Your task to perform on an android device: toggle notification dots Image 0: 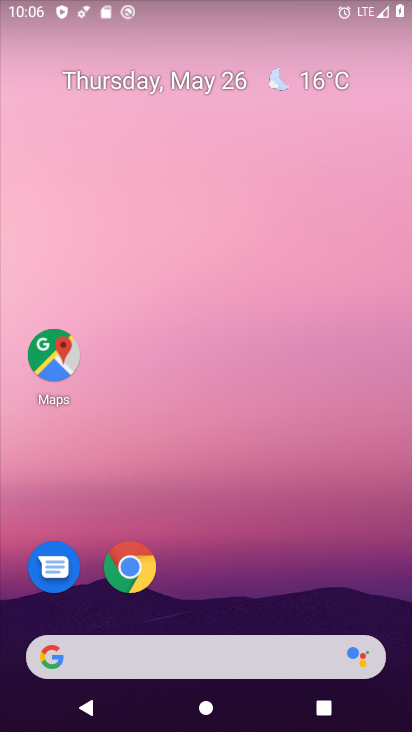
Step 0: drag from (401, 706) to (309, 162)
Your task to perform on an android device: toggle notification dots Image 1: 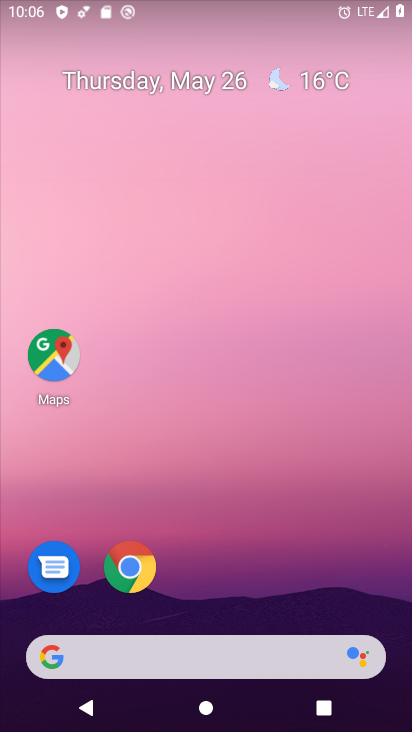
Step 1: drag from (389, 688) to (315, 131)
Your task to perform on an android device: toggle notification dots Image 2: 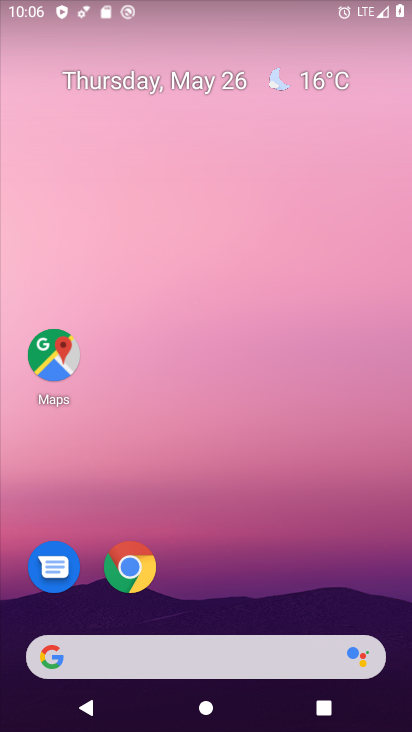
Step 2: drag from (385, 707) to (240, 114)
Your task to perform on an android device: toggle notification dots Image 3: 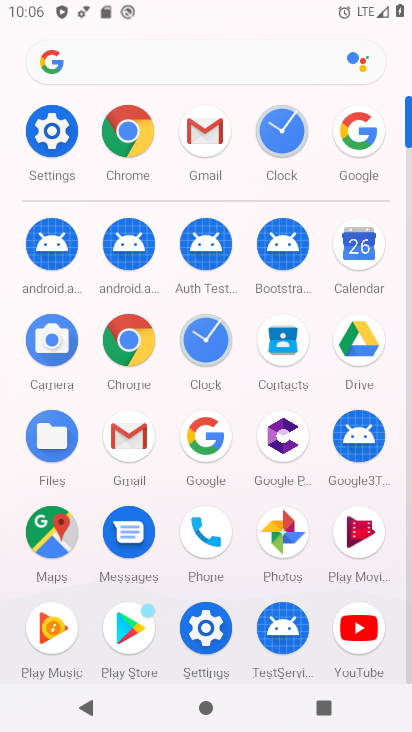
Step 3: click (53, 118)
Your task to perform on an android device: toggle notification dots Image 4: 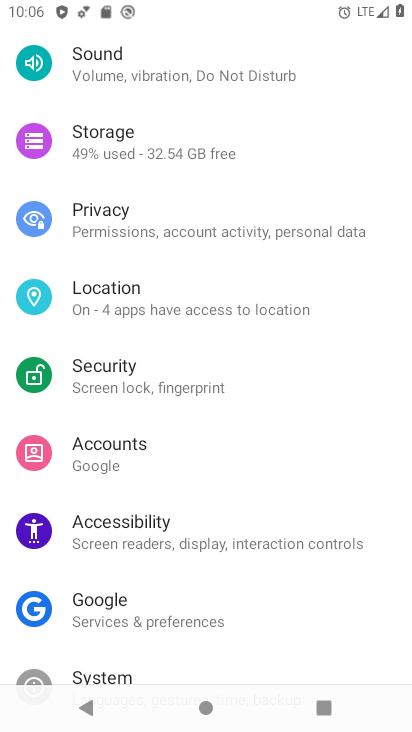
Step 4: drag from (263, 624) to (273, 310)
Your task to perform on an android device: toggle notification dots Image 5: 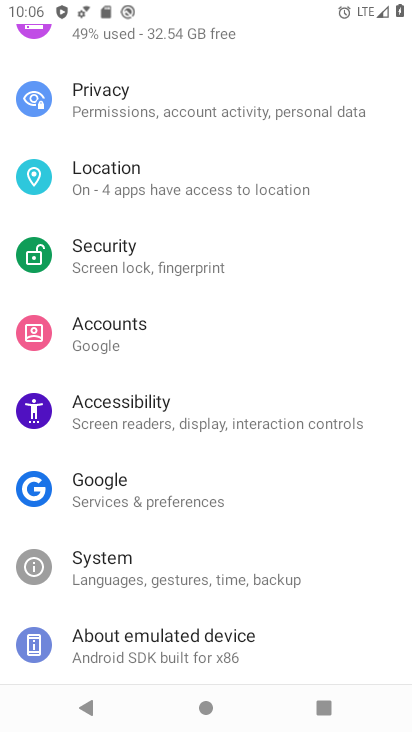
Step 5: drag from (260, 76) to (374, 635)
Your task to perform on an android device: toggle notification dots Image 6: 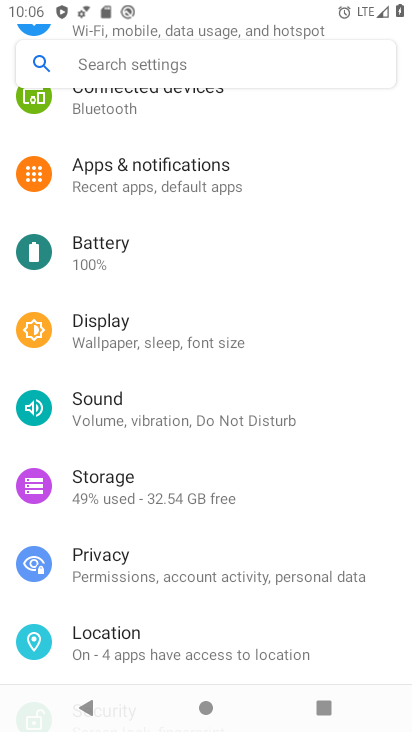
Step 6: drag from (297, 159) to (358, 538)
Your task to perform on an android device: toggle notification dots Image 7: 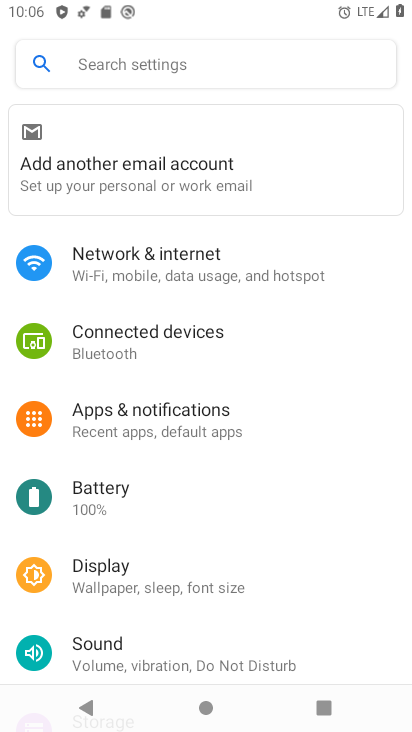
Step 7: click (110, 415)
Your task to perform on an android device: toggle notification dots Image 8: 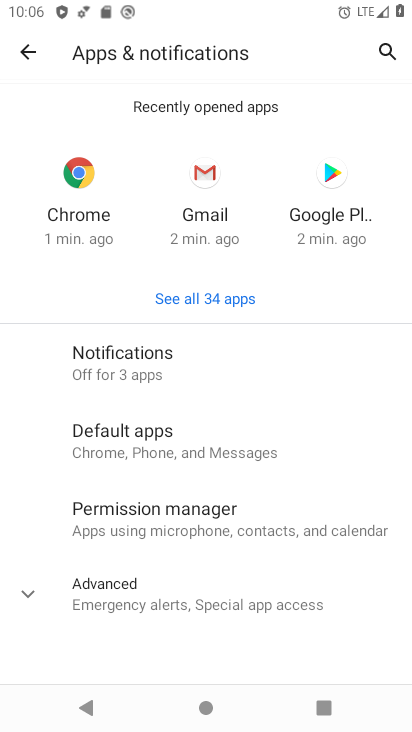
Step 8: click (109, 376)
Your task to perform on an android device: toggle notification dots Image 9: 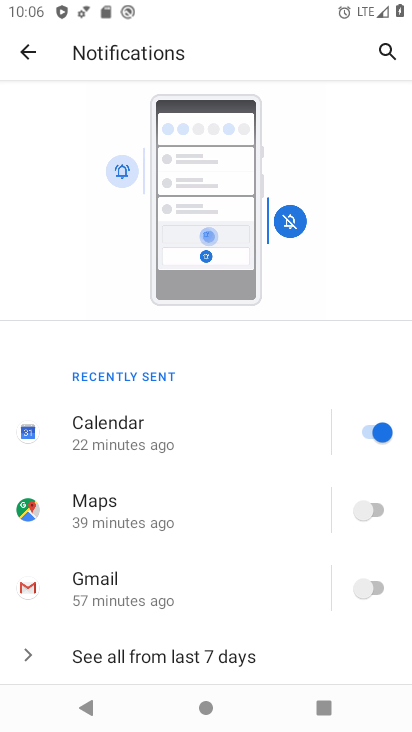
Step 9: drag from (266, 646) to (231, 263)
Your task to perform on an android device: toggle notification dots Image 10: 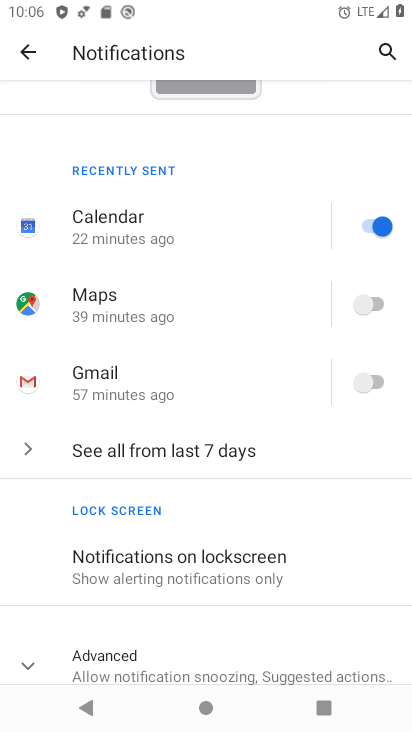
Step 10: drag from (235, 638) to (237, 208)
Your task to perform on an android device: toggle notification dots Image 11: 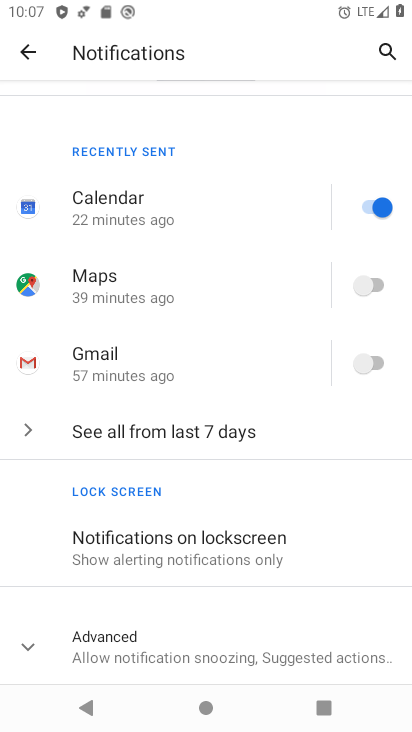
Step 11: click (21, 646)
Your task to perform on an android device: toggle notification dots Image 12: 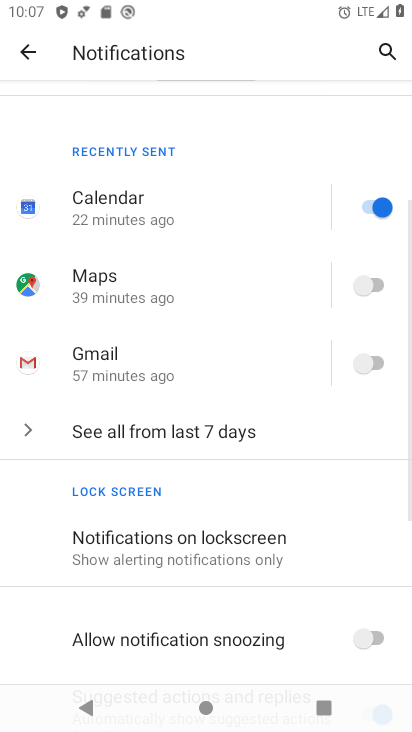
Step 12: drag from (193, 672) to (205, 324)
Your task to perform on an android device: toggle notification dots Image 13: 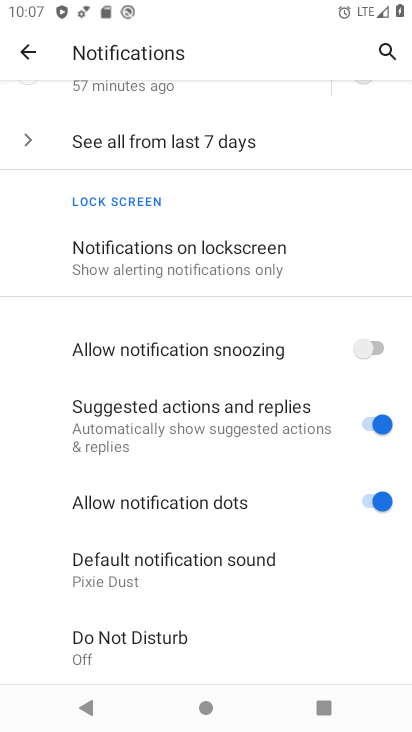
Step 13: click (371, 498)
Your task to perform on an android device: toggle notification dots Image 14: 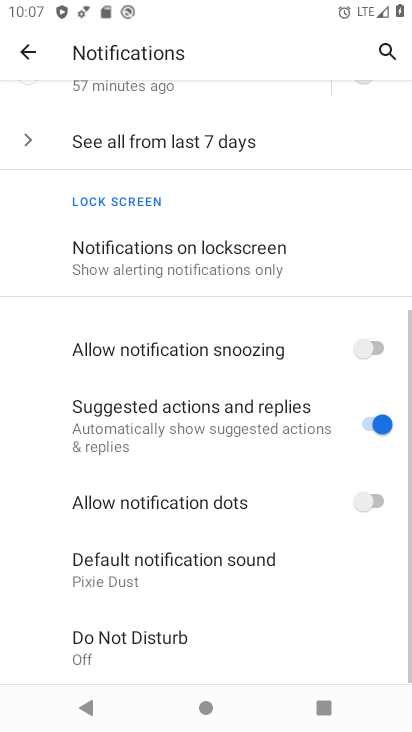
Step 14: task complete